Your task to perform on an android device: Is it going to rain today? Image 0: 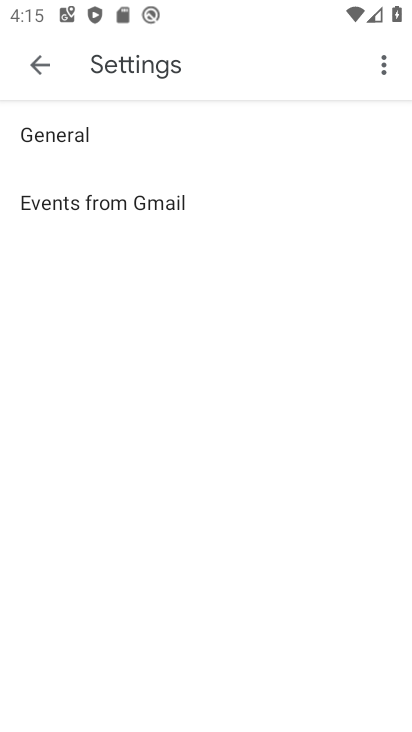
Step 0: press home button
Your task to perform on an android device: Is it going to rain today? Image 1: 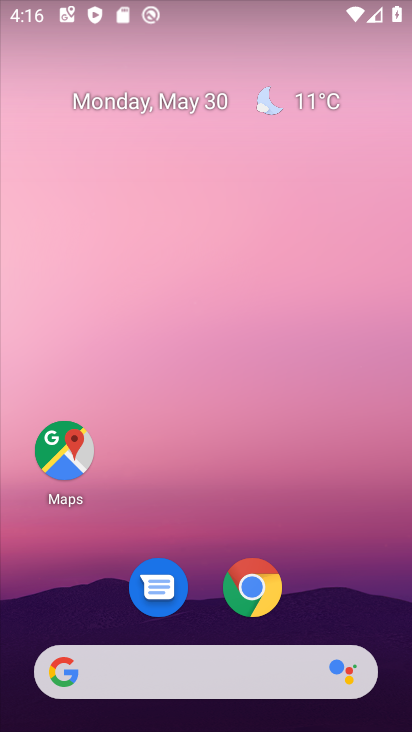
Step 1: click (266, 664)
Your task to perform on an android device: Is it going to rain today? Image 2: 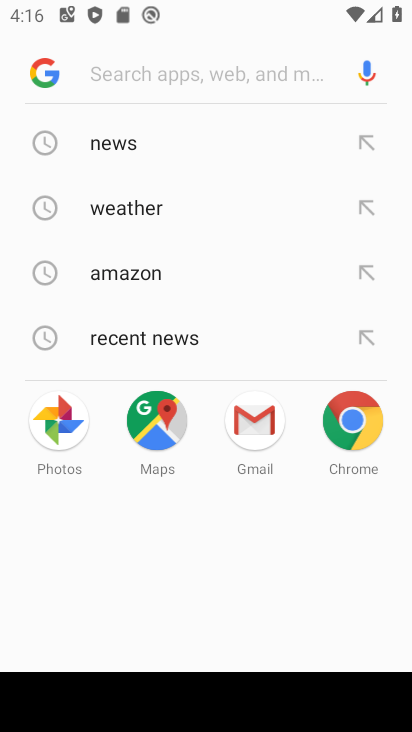
Step 2: type "Is it going to rain today?"
Your task to perform on an android device: Is it going to rain today? Image 3: 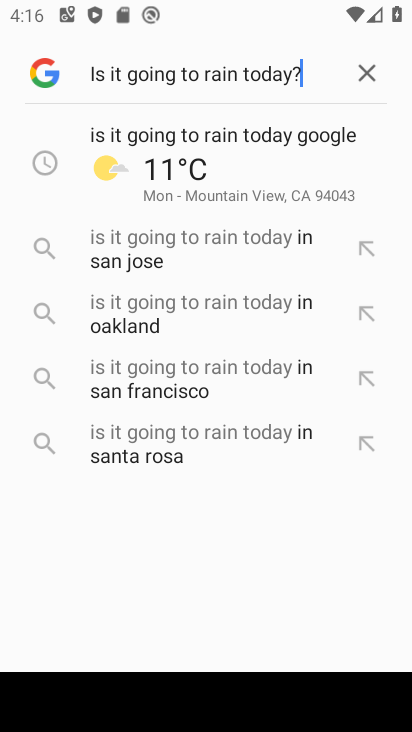
Step 3: click (311, 159)
Your task to perform on an android device: Is it going to rain today? Image 4: 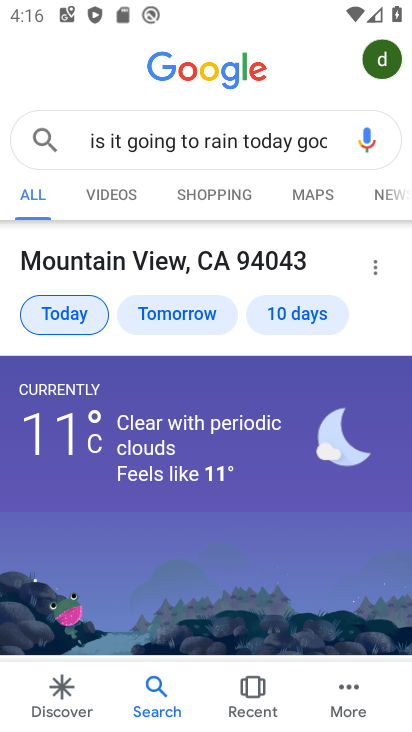
Step 4: task complete